Your task to perform on an android device: delete a single message in the gmail app Image 0: 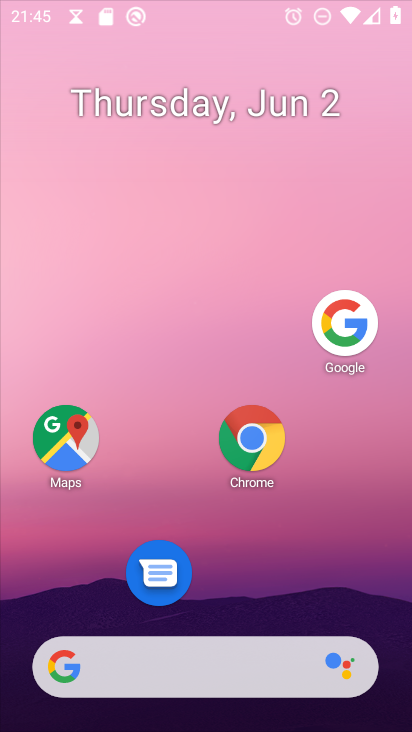
Step 0: press home button
Your task to perform on an android device: delete a single message in the gmail app Image 1: 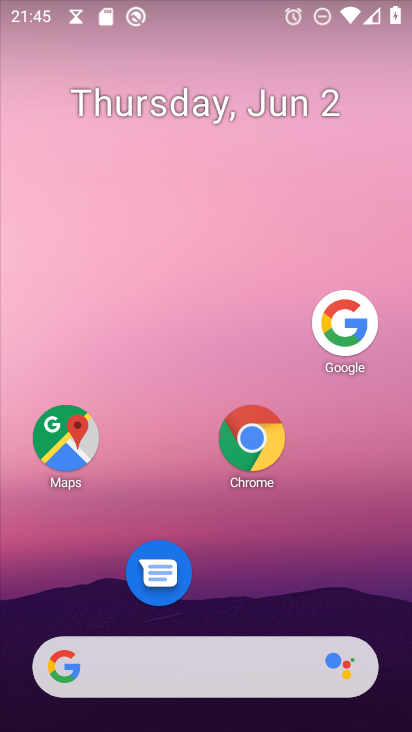
Step 1: drag from (180, 682) to (332, 134)
Your task to perform on an android device: delete a single message in the gmail app Image 2: 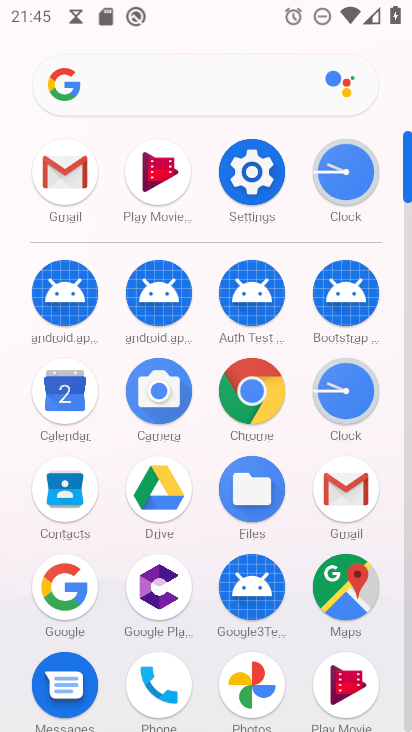
Step 2: click (358, 498)
Your task to perform on an android device: delete a single message in the gmail app Image 3: 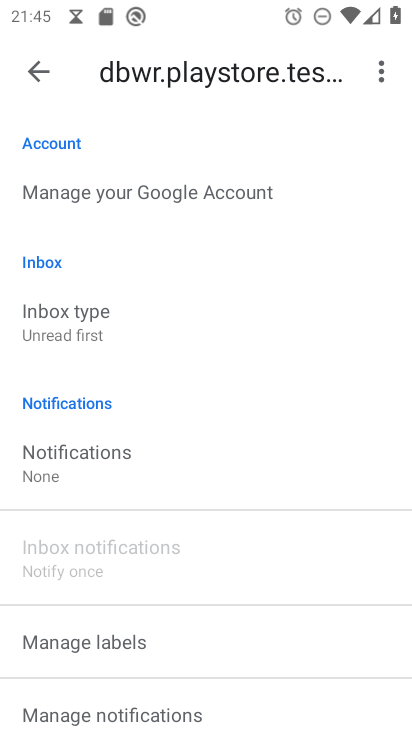
Step 3: click (47, 75)
Your task to perform on an android device: delete a single message in the gmail app Image 4: 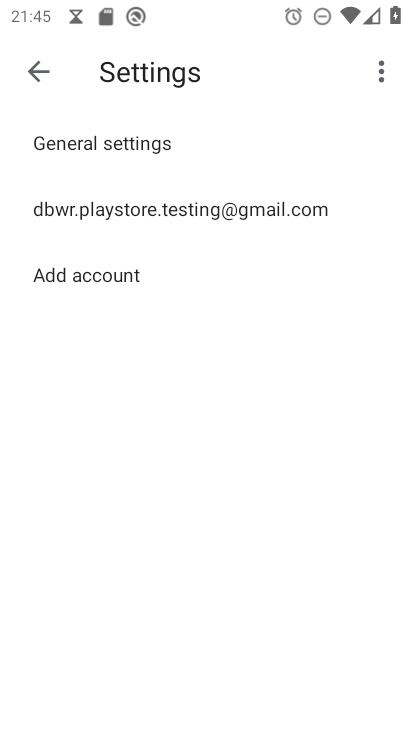
Step 4: click (47, 75)
Your task to perform on an android device: delete a single message in the gmail app Image 5: 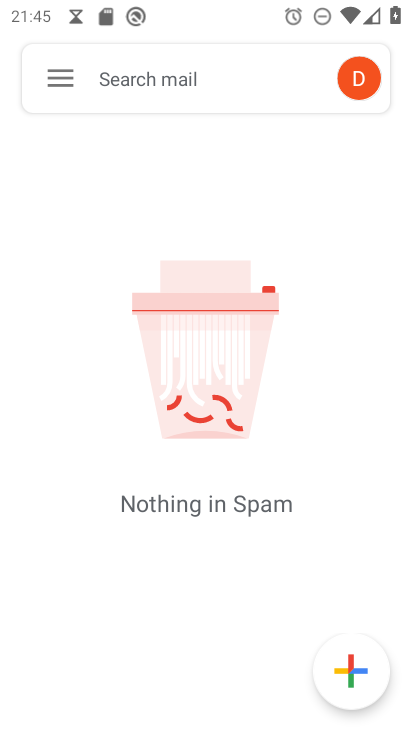
Step 5: click (61, 76)
Your task to perform on an android device: delete a single message in the gmail app Image 6: 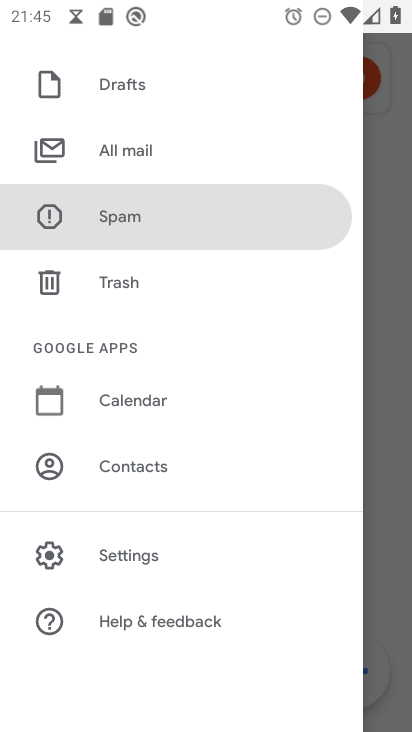
Step 6: click (132, 150)
Your task to perform on an android device: delete a single message in the gmail app Image 7: 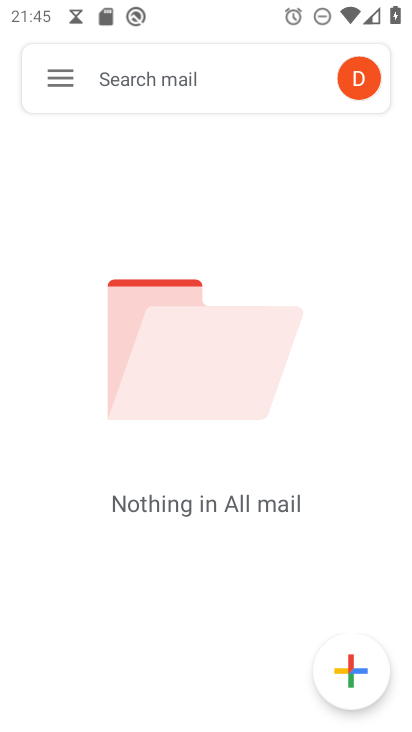
Step 7: task complete